Your task to perform on an android device: Open calendar and show me the second week of next month Image 0: 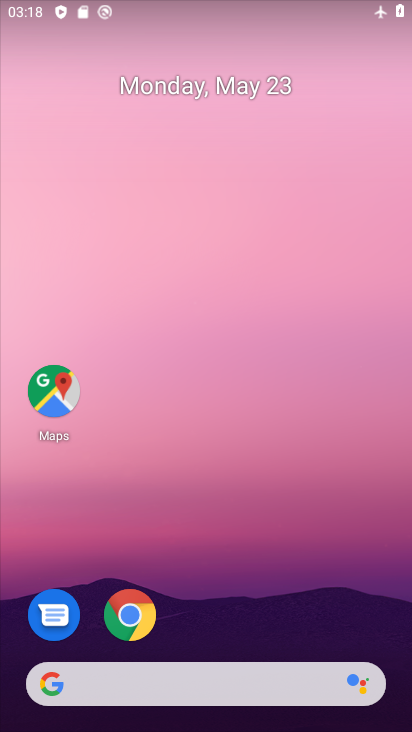
Step 0: drag from (297, 618) to (268, 283)
Your task to perform on an android device: Open calendar and show me the second week of next month Image 1: 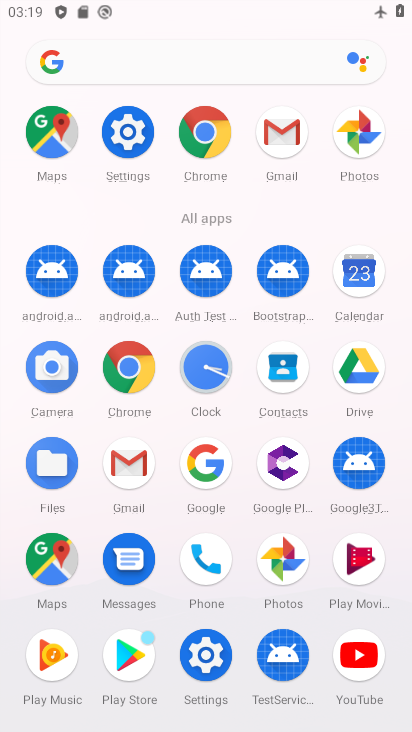
Step 1: click (354, 262)
Your task to perform on an android device: Open calendar and show me the second week of next month Image 2: 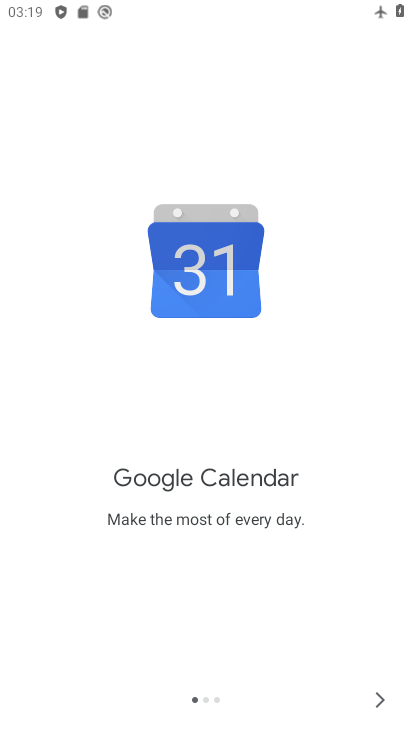
Step 2: click (377, 702)
Your task to perform on an android device: Open calendar and show me the second week of next month Image 3: 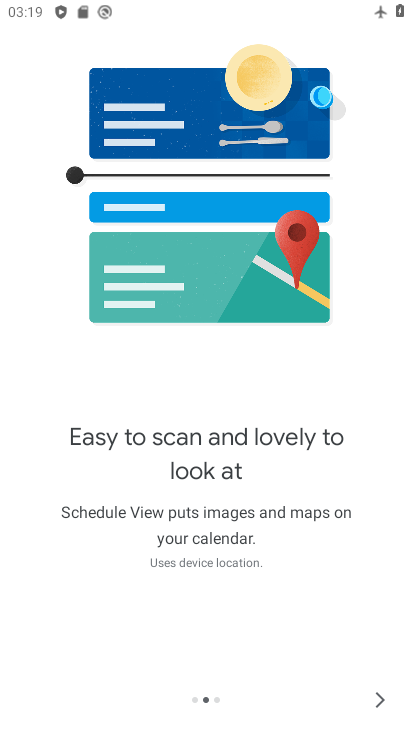
Step 3: click (377, 700)
Your task to perform on an android device: Open calendar and show me the second week of next month Image 4: 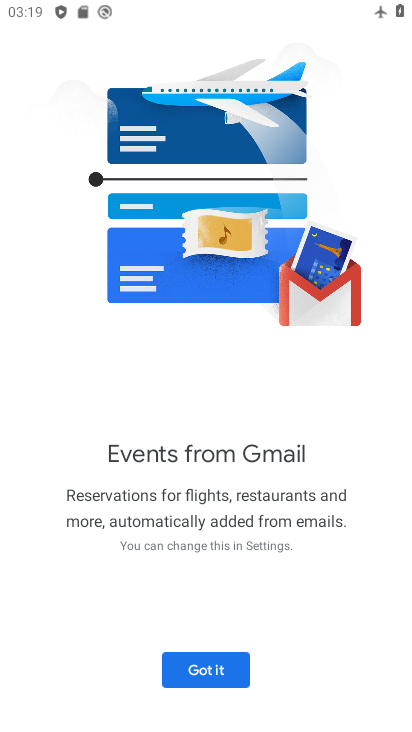
Step 4: click (377, 699)
Your task to perform on an android device: Open calendar and show me the second week of next month Image 5: 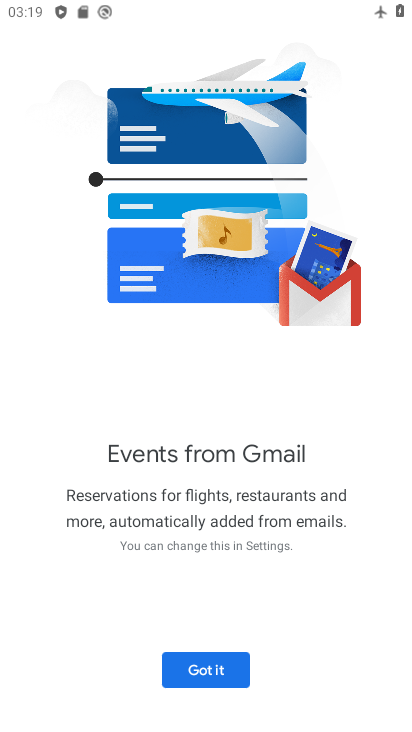
Step 5: click (188, 658)
Your task to perform on an android device: Open calendar and show me the second week of next month Image 6: 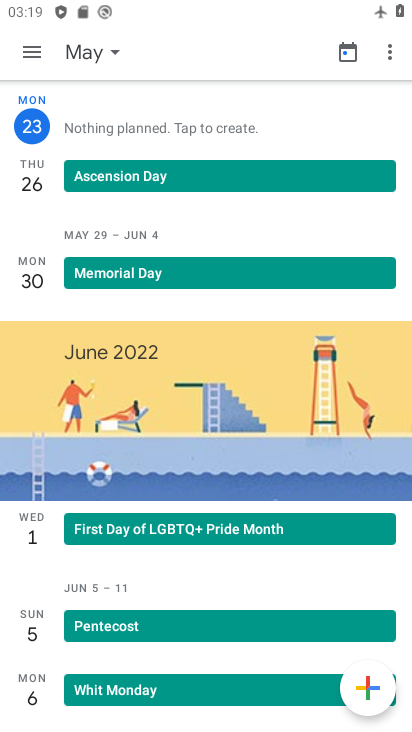
Step 6: click (38, 44)
Your task to perform on an android device: Open calendar and show me the second week of next month Image 7: 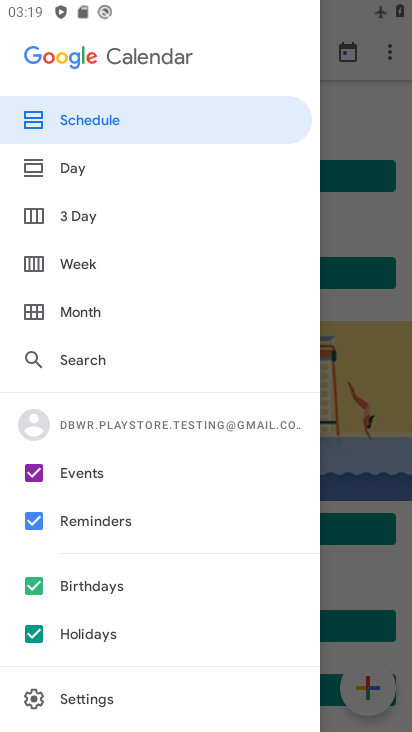
Step 7: click (103, 309)
Your task to perform on an android device: Open calendar and show me the second week of next month Image 8: 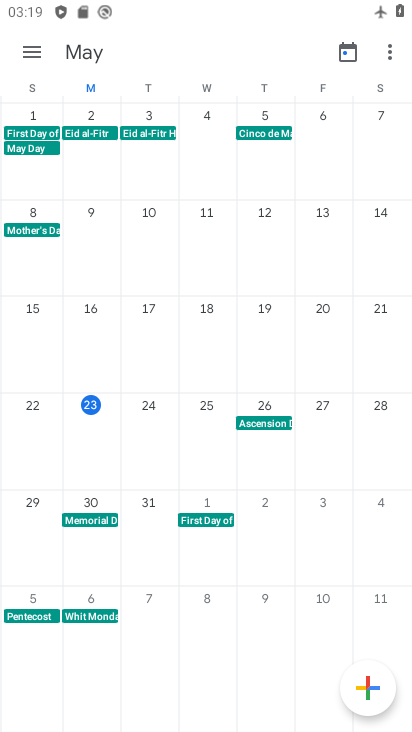
Step 8: click (30, 44)
Your task to perform on an android device: Open calendar and show me the second week of next month Image 9: 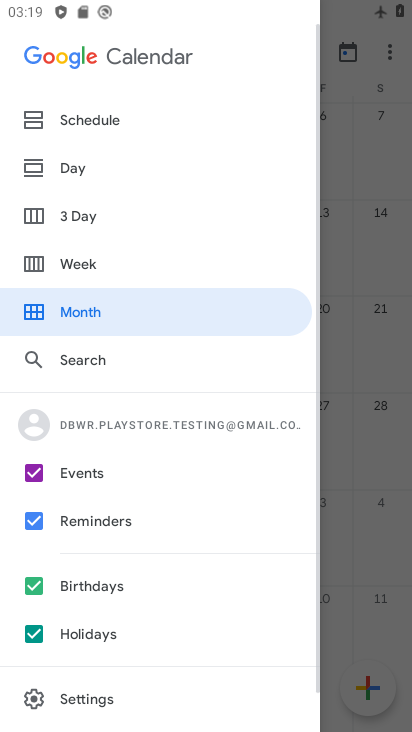
Step 9: click (117, 267)
Your task to perform on an android device: Open calendar and show me the second week of next month Image 10: 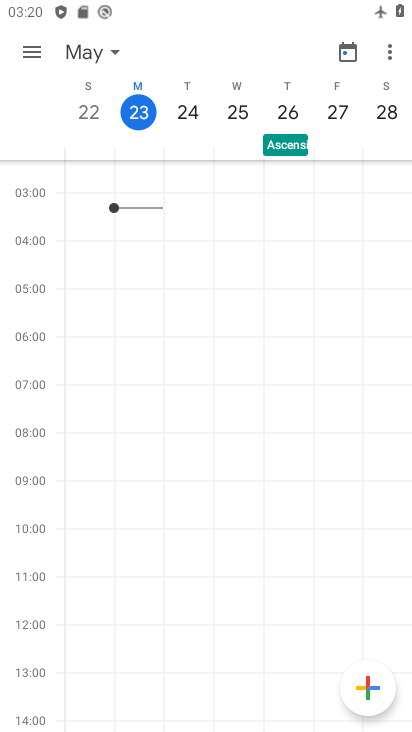
Step 10: task complete